Your task to perform on an android device: Go to sound settings Image 0: 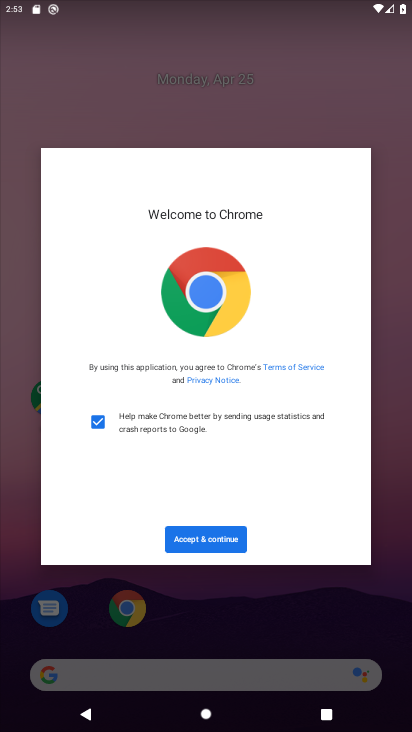
Step 0: press home button
Your task to perform on an android device: Go to sound settings Image 1: 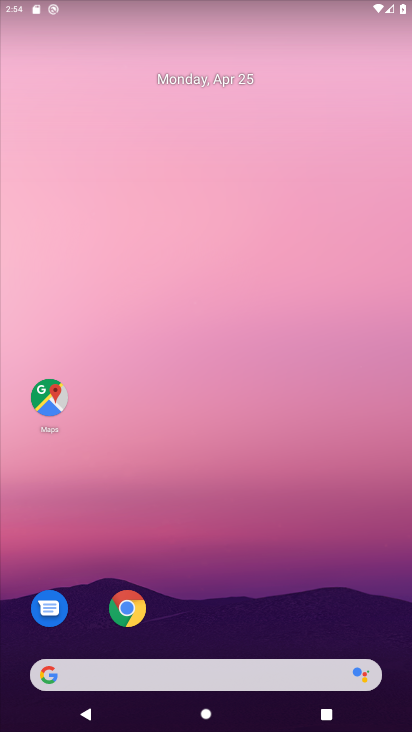
Step 1: drag from (244, 459) to (255, 24)
Your task to perform on an android device: Go to sound settings Image 2: 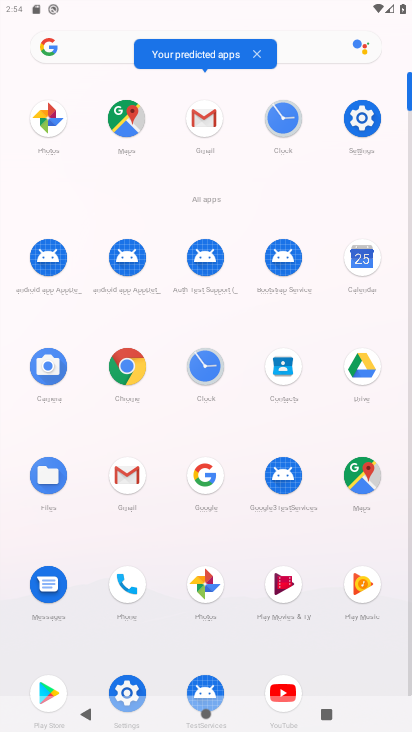
Step 2: click (360, 129)
Your task to perform on an android device: Go to sound settings Image 3: 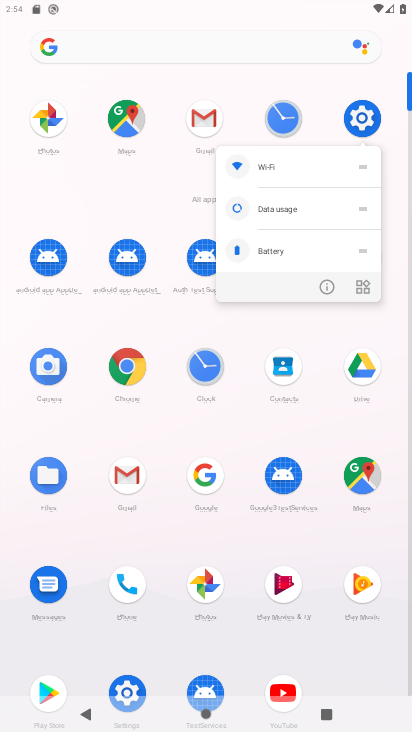
Step 3: click (360, 129)
Your task to perform on an android device: Go to sound settings Image 4: 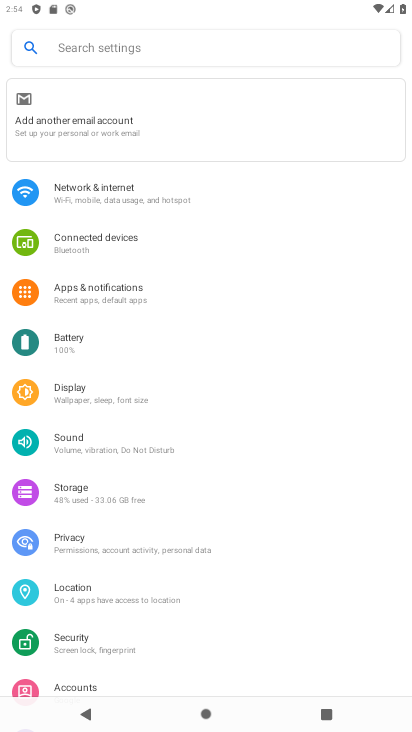
Step 4: click (83, 448)
Your task to perform on an android device: Go to sound settings Image 5: 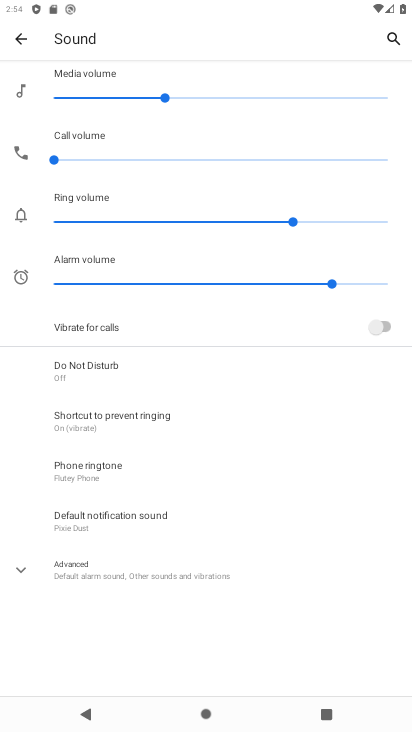
Step 5: task complete